Your task to perform on an android device: Check the news Image 0: 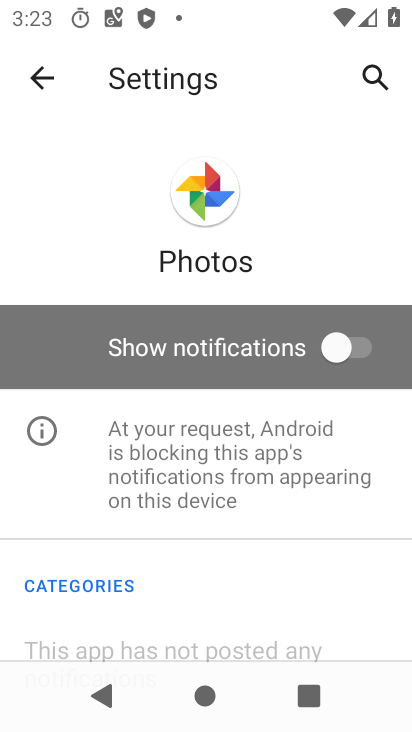
Step 0: press home button
Your task to perform on an android device: Check the news Image 1: 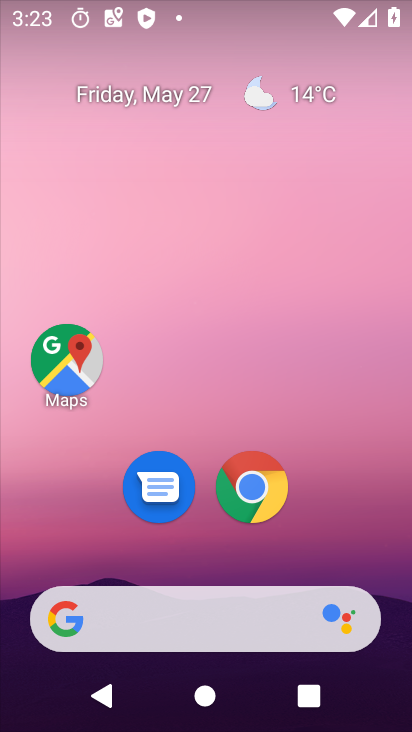
Step 1: drag from (326, 532) to (242, 225)
Your task to perform on an android device: Check the news Image 2: 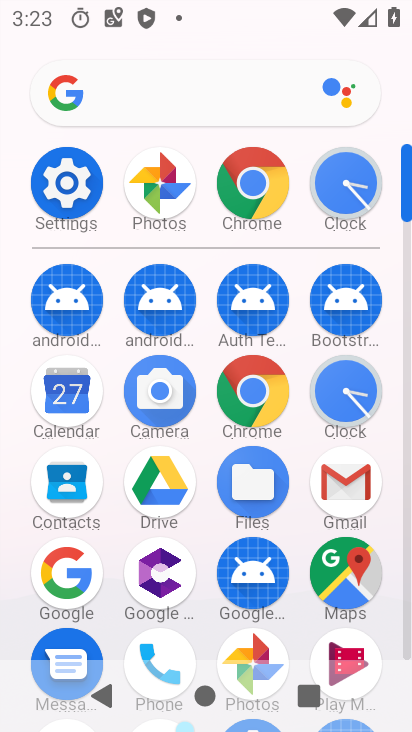
Step 2: click (260, 185)
Your task to perform on an android device: Check the news Image 3: 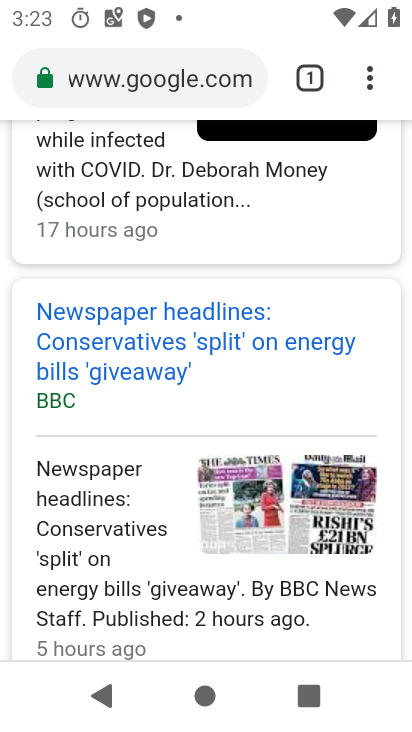
Step 3: click (192, 83)
Your task to perform on an android device: Check the news Image 4: 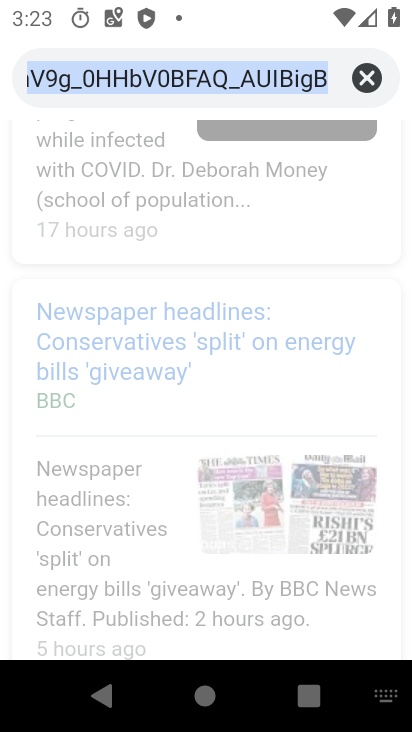
Step 4: type "news"
Your task to perform on an android device: Check the news Image 5: 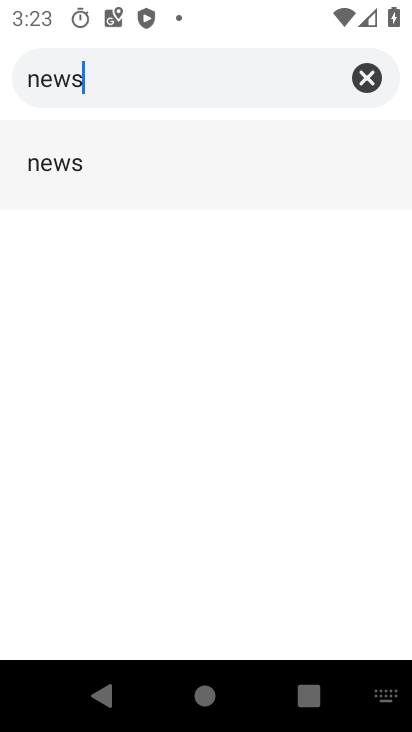
Step 5: type ""
Your task to perform on an android device: Check the news Image 6: 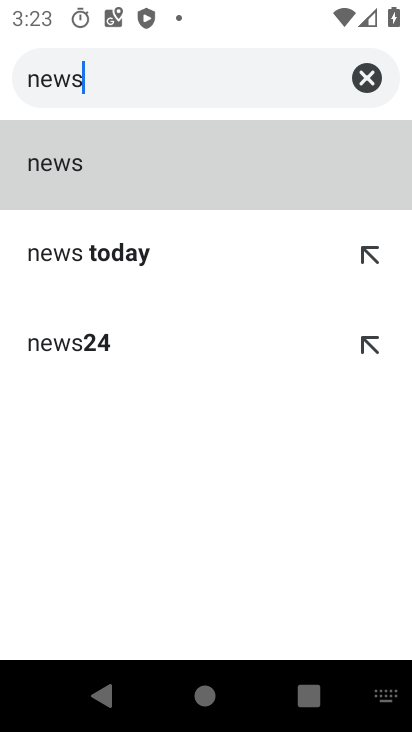
Step 6: click (85, 157)
Your task to perform on an android device: Check the news Image 7: 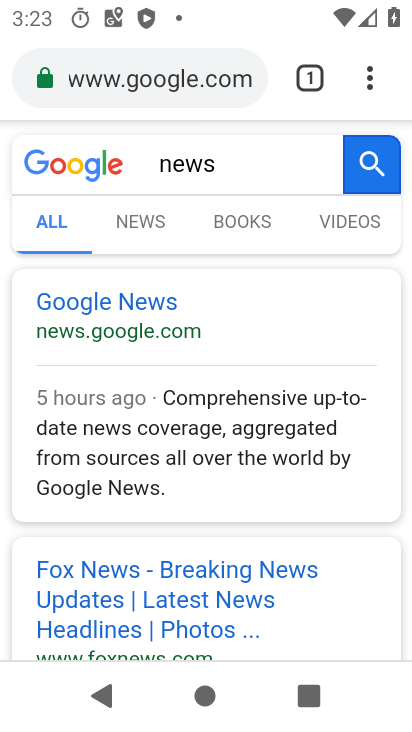
Step 7: click (151, 297)
Your task to perform on an android device: Check the news Image 8: 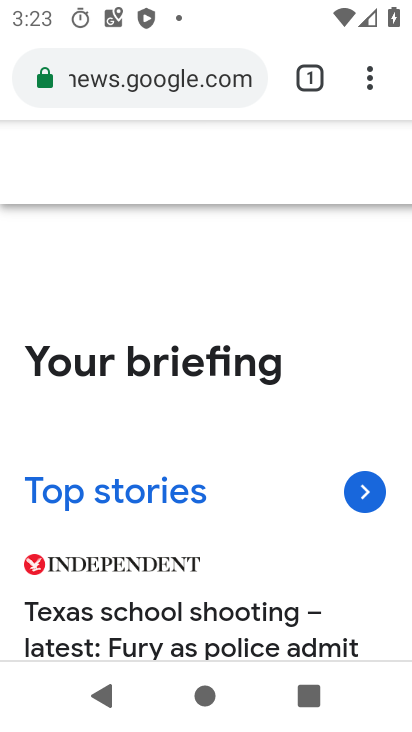
Step 8: task complete